Your task to perform on an android device: Open privacy settings Image 0: 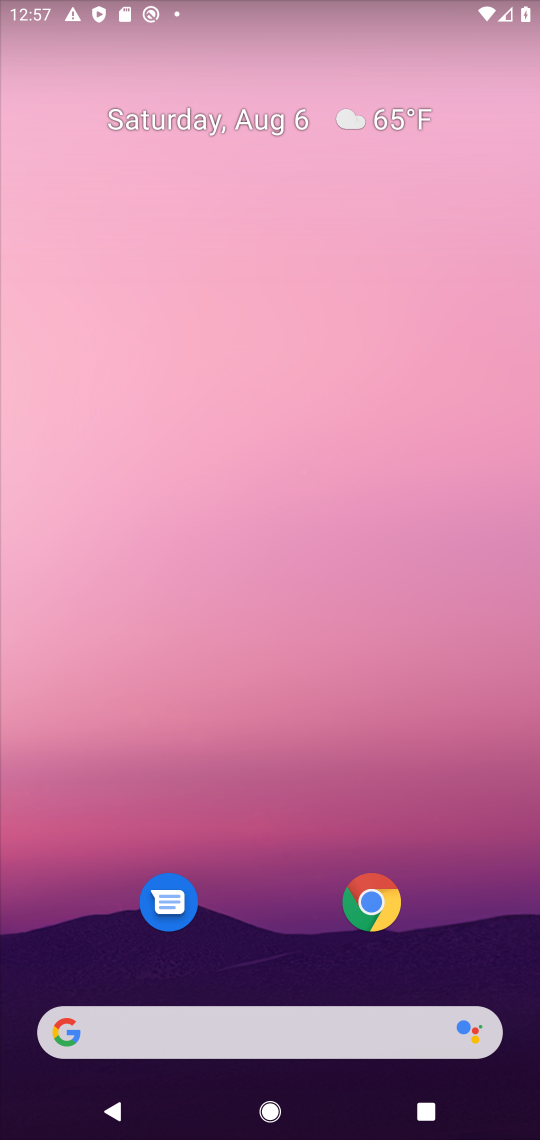
Step 0: drag from (283, 934) to (272, 474)
Your task to perform on an android device: Open privacy settings Image 1: 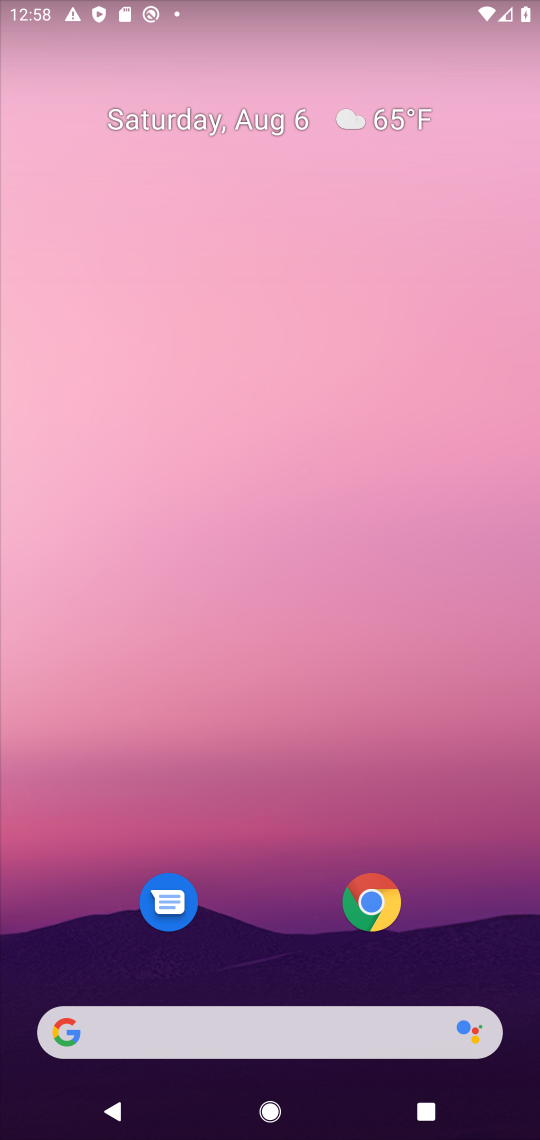
Step 1: drag from (271, 894) to (249, 290)
Your task to perform on an android device: Open privacy settings Image 2: 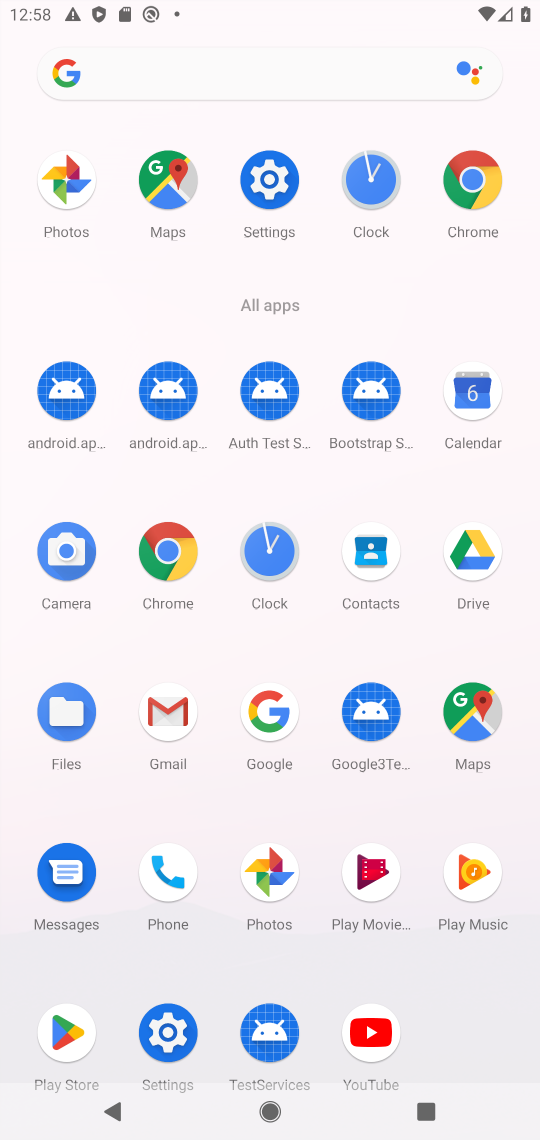
Step 2: click (265, 174)
Your task to perform on an android device: Open privacy settings Image 3: 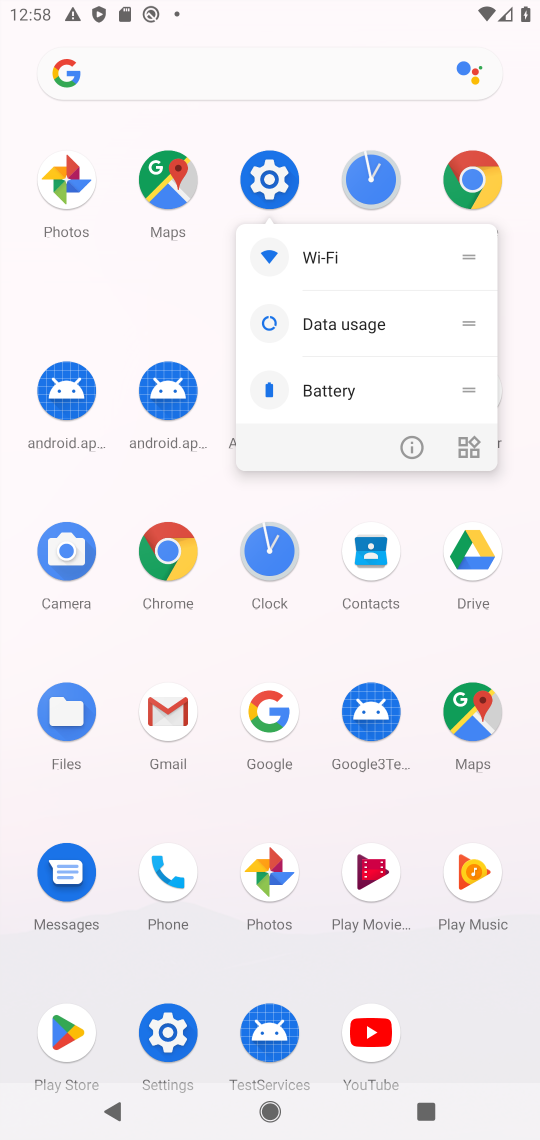
Step 3: click (272, 173)
Your task to perform on an android device: Open privacy settings Image 4: 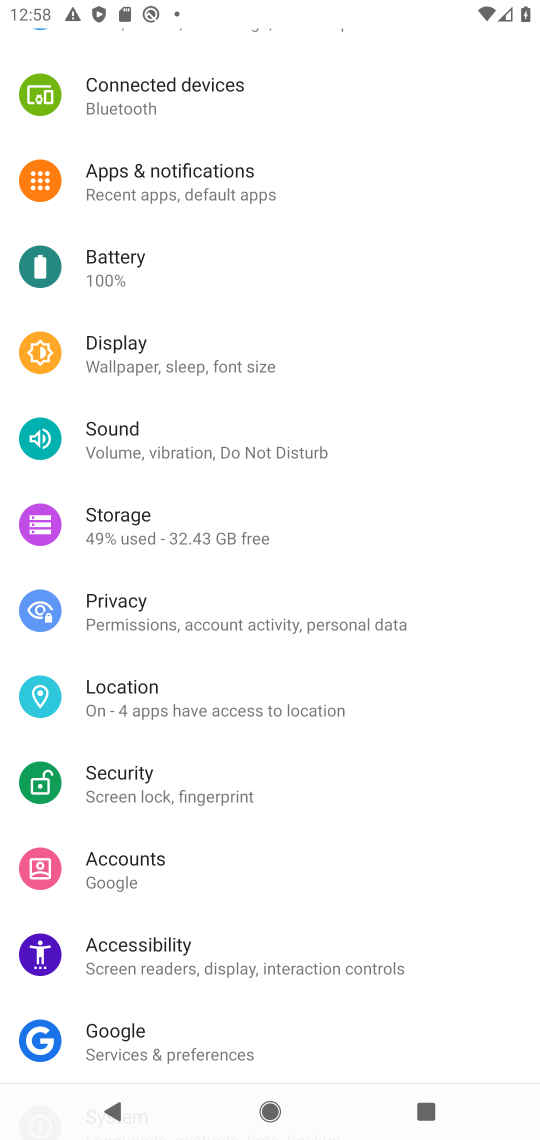
Step 4: click (128, 593)
Your task to perform on an android device: Open privacy settings Image 5: 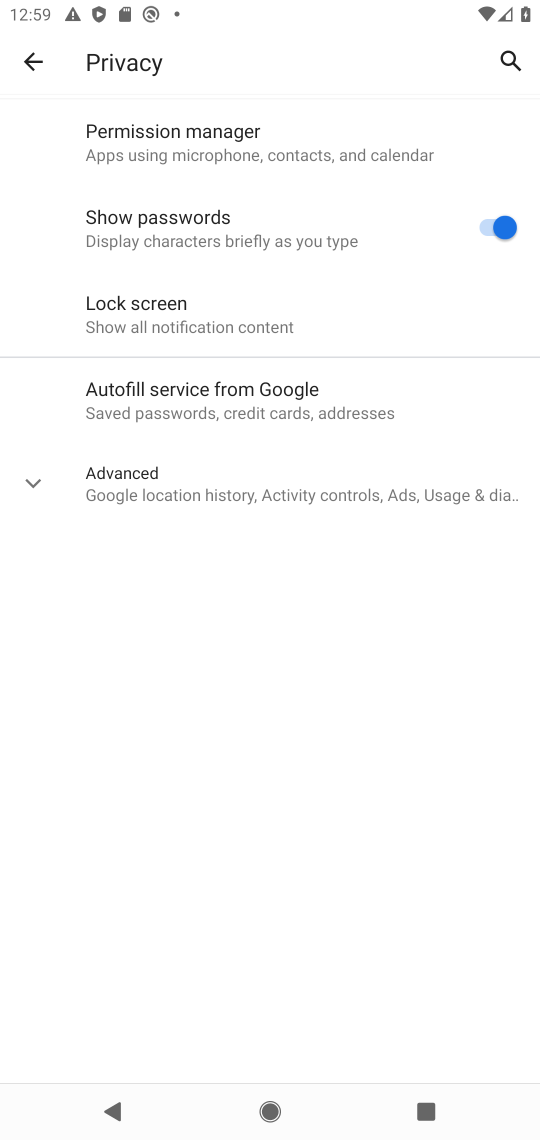
Step 5: task complete